Your task to perform on an android device: Open privacy settings Image 0: 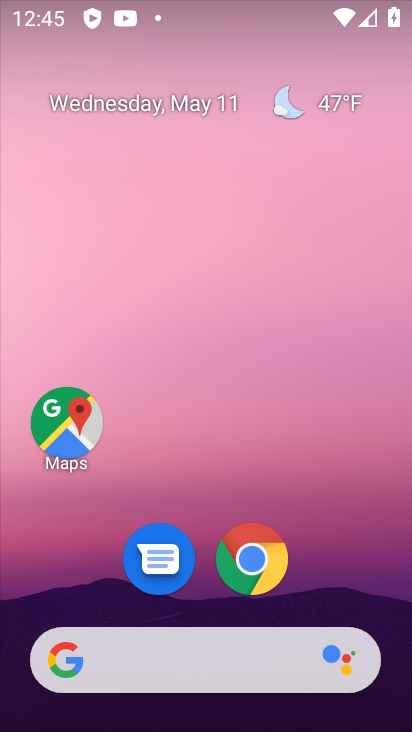
Step 0: drag from (202, 601) to (225, 0)
Your task to perform on an android device: Open privacy settings Image 1: 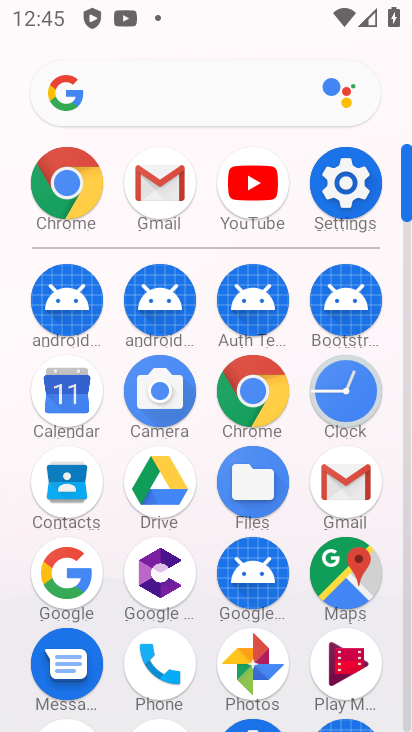
Step 1: click (359, 182)
Your task to perform on an android device: Open privacy settings Image 2: 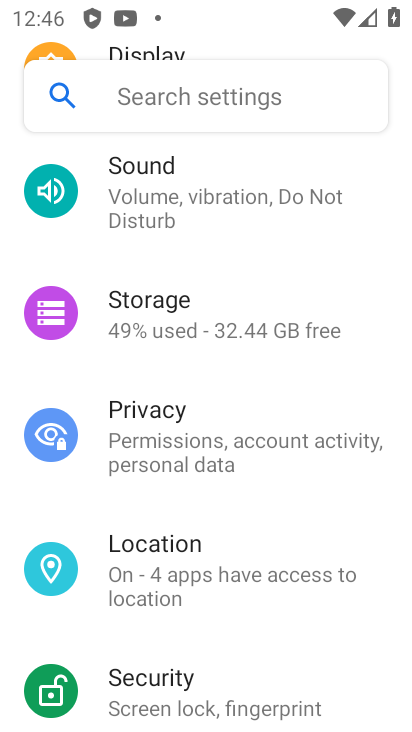
Step 2: click (213, 458)
Your task to perform on an android device: Open privacy settings Image 3: 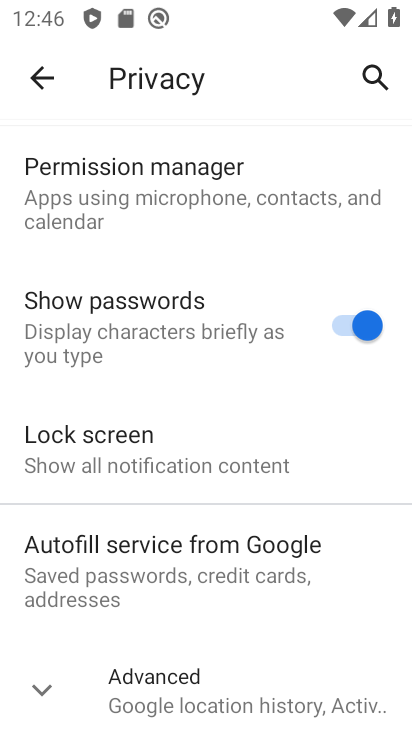
Step 3: task complete